Your task to perform on an android device: Go to eBay Image 0: 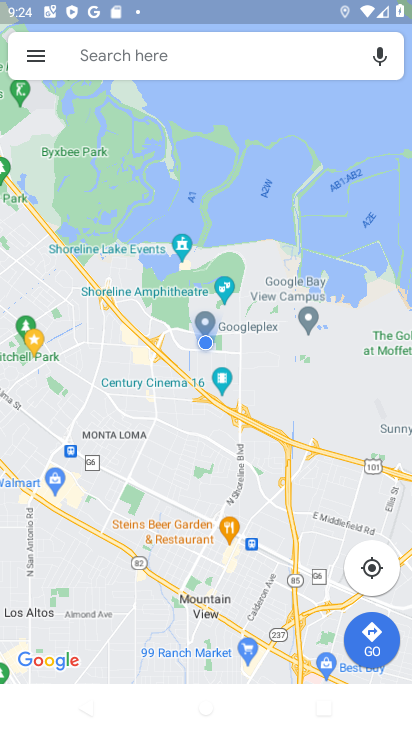
Step 0: press home button
Your task to perform on an android device: Go to eBay Image 1: 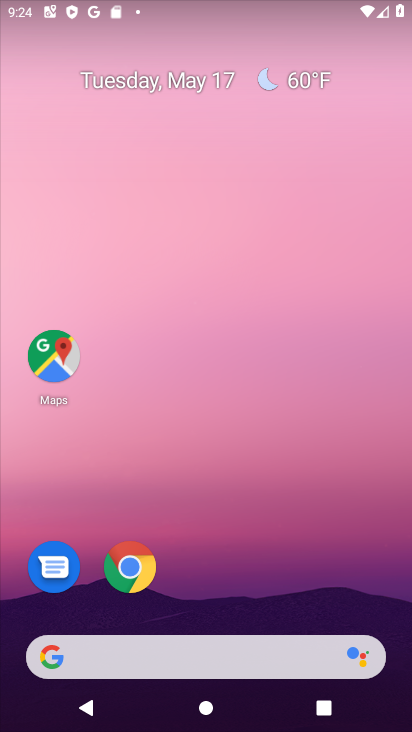
Step 1: drag from (349, 575) to (317, 49)
Your task to perform on an android device: Go to eBay Image 2: 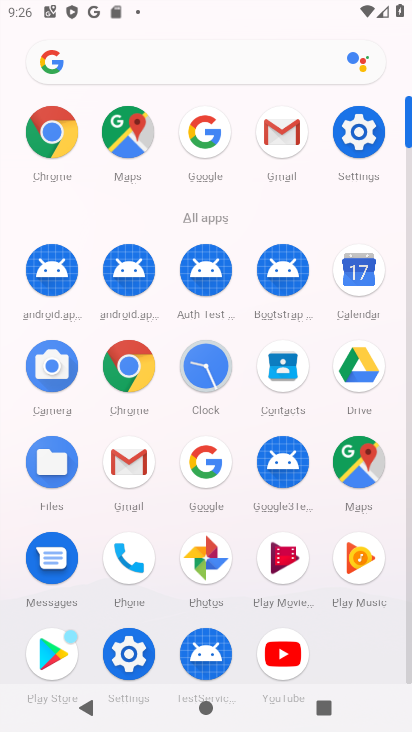
Step 2: click (201, 451)
Your task to perform on an android device: Go to eBay Image 3: 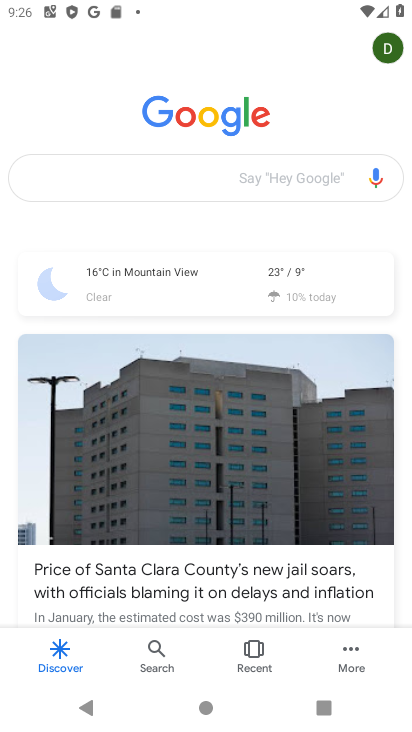
Step 3: click (131, 189)
Your task to perform on an android device: Go to eBay Image 4: 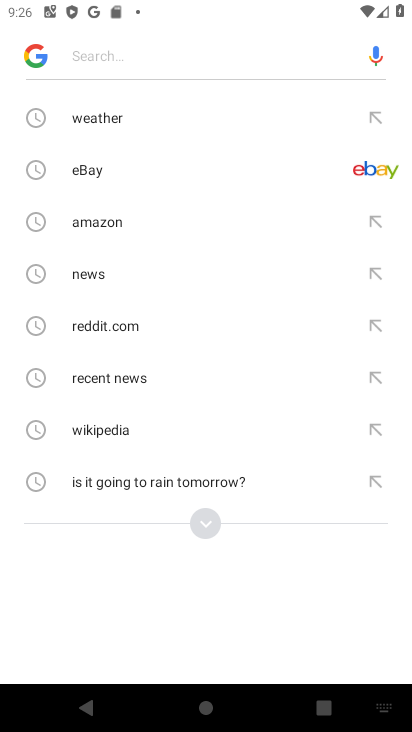
Step 4: click (122, 178)
Your task to perform on an android device: Go to eBay Image 5: 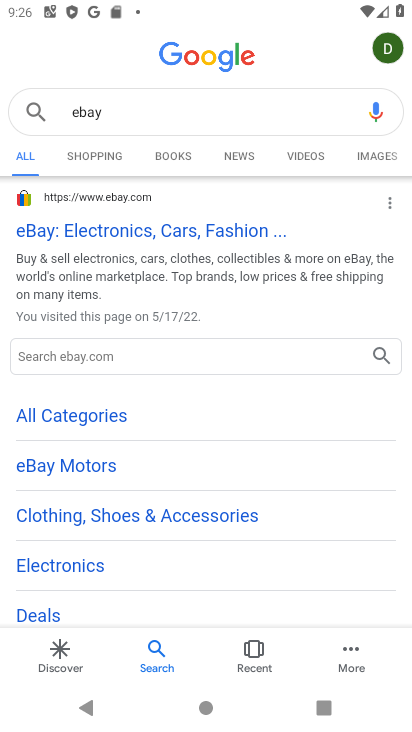
Step 5: task complete